Your task to perform on an android device: clear all cookies in the chrome app Image 0: 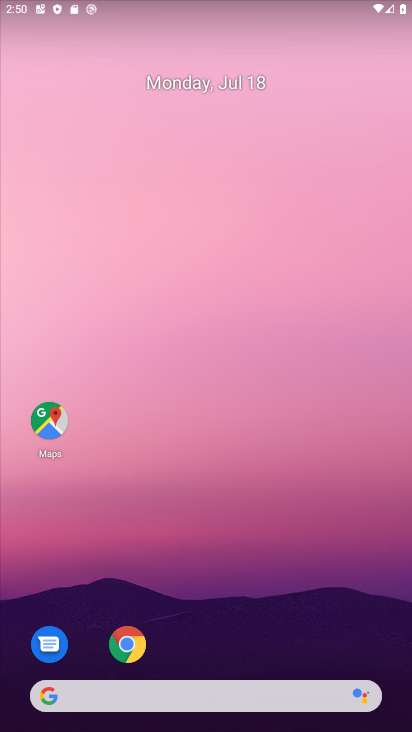
Step 0: click (129, 647)
Your task to perform on an android device: clear all cookies in the chrome app Image 1: 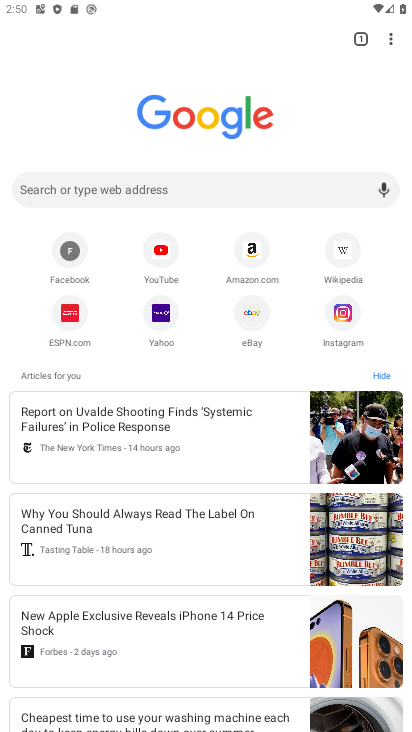
Step 1: click (390, 38)
Your task to perform on an android device: clear all cookies in the chrome app Image 2: 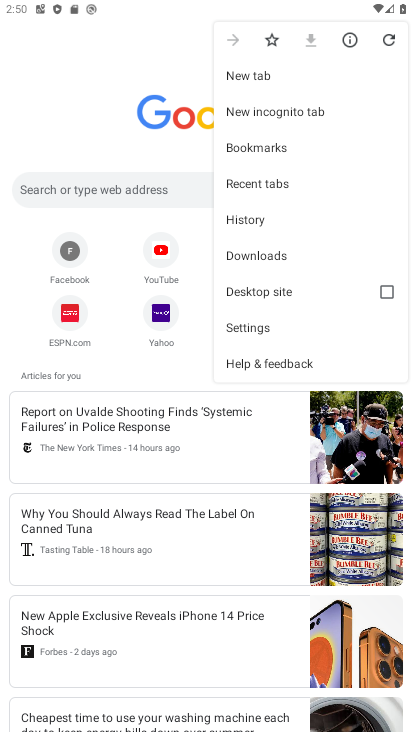
Step 2: click (288, 227)
Your task to perform on an android device: clear all cookies in the chrome app Image 3: 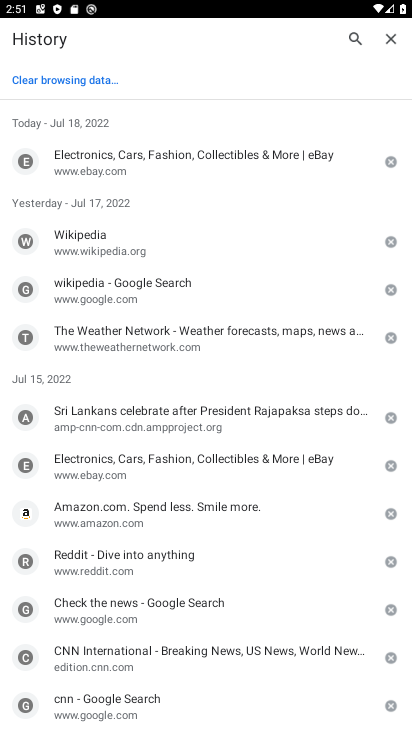
Step 3: click (78, 83)
Your task to perform on an android device: clear all cookies in the chrome app Image 4: 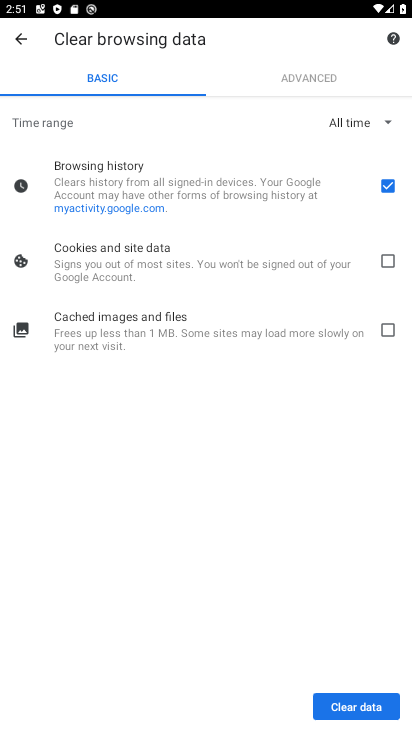
Step 4: click (392, 254)
Your task to perform on an android device: clear all cookies in the chrome app Image 5: 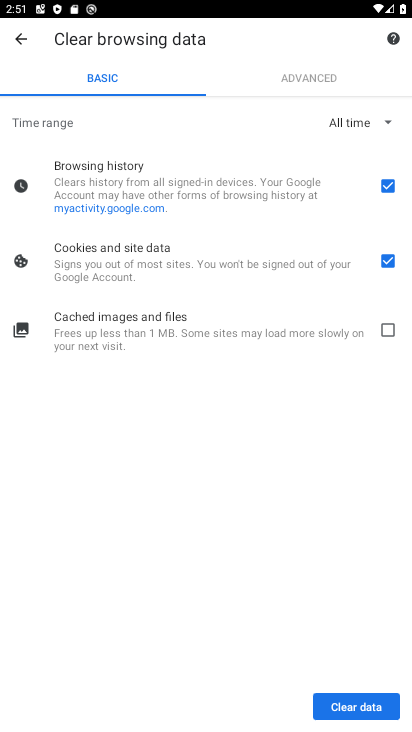
Step 5: click (383, 185)
Your task to perform on an android device: clear all cookies in the chrome app Image 6: 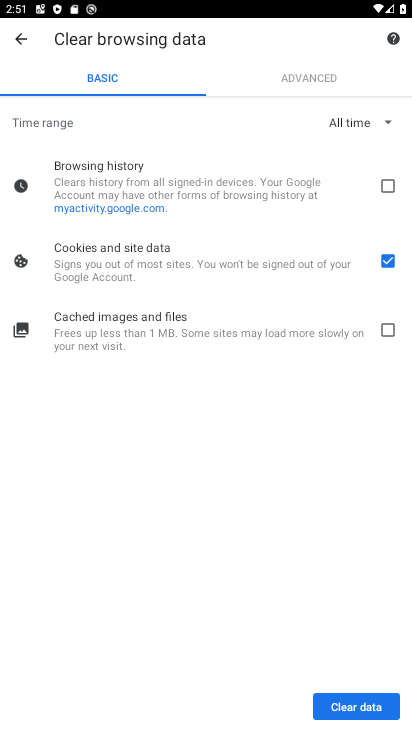
Step 6: click (377, 712)
Your task to perform on an android device: clear all cookies in the chrome app Image 7: 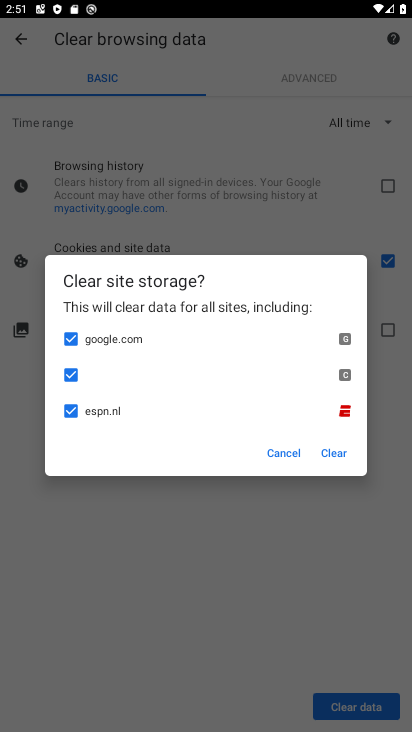
Step 7: click (338, 454)
Your task to perform on an android device: clear all cookies in the chrome app Image 8: 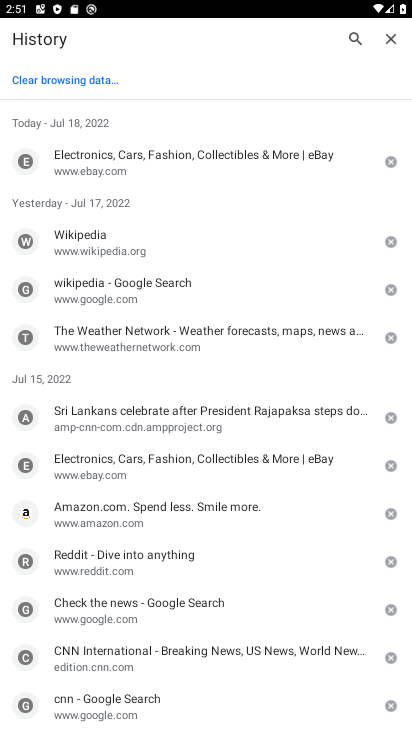
Step 8: task complete